Your task to perform on an android device: Go to sound settings Image 0: 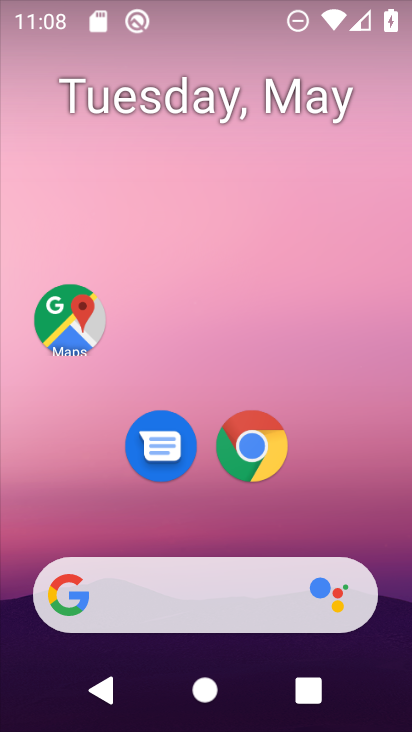
Step 0: drag from (188, 540) to (277, 17)
Your task to perform on an android device: Go to sound settings Image 1: 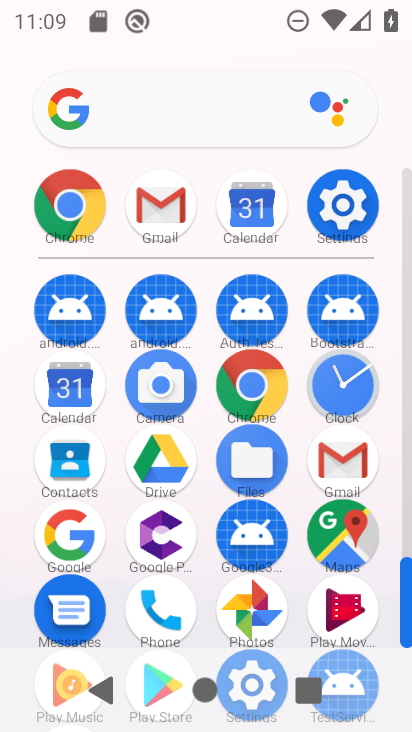
Step 1: click (351, 208)
Your task to perform on an android device: Go to sound settings Image 2: 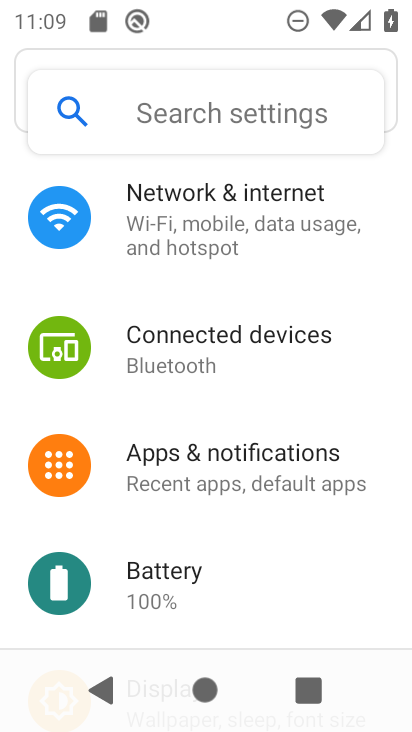
Step 2: drag from (250, 578) to (277, 273)
Your task to perform on an android device: Go to sound settings Image 3: 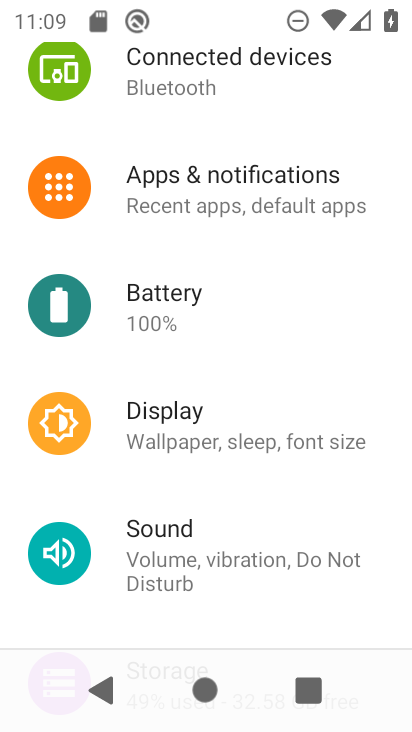
Step 3: click (163, 531)
Your task to perform on an android device: Go to sound settings Image 4: 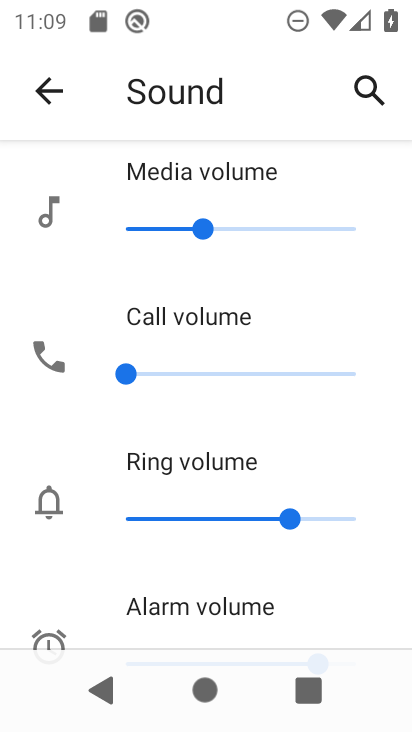
Step 4: task complete